Your task to perform on an android device: What's the news in Nepal? Image 0: 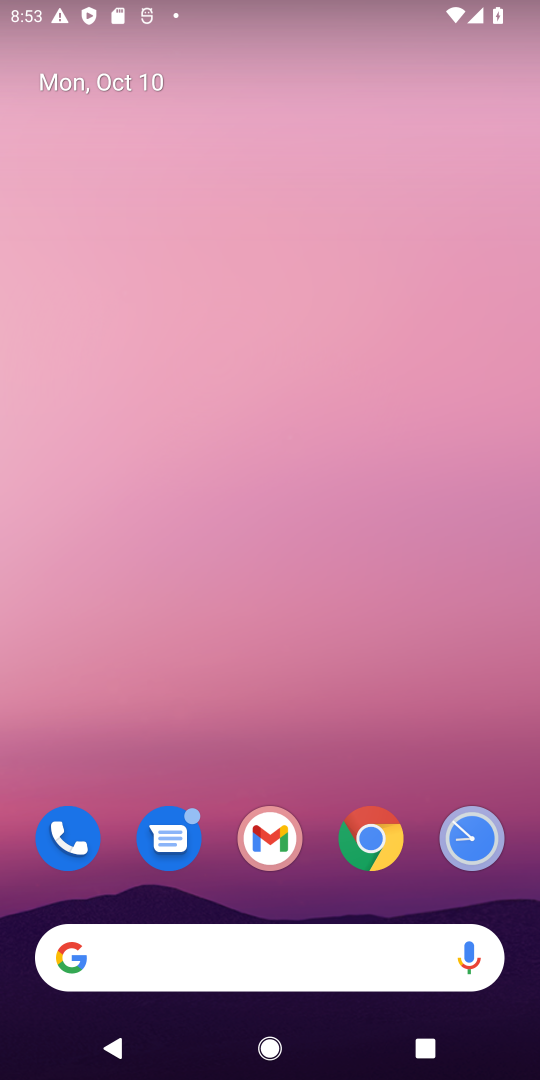
Step 0: drag from (307, 911) to (286, 133)
Your task to perform on an android device: What's the news in Nepal? Image 1: 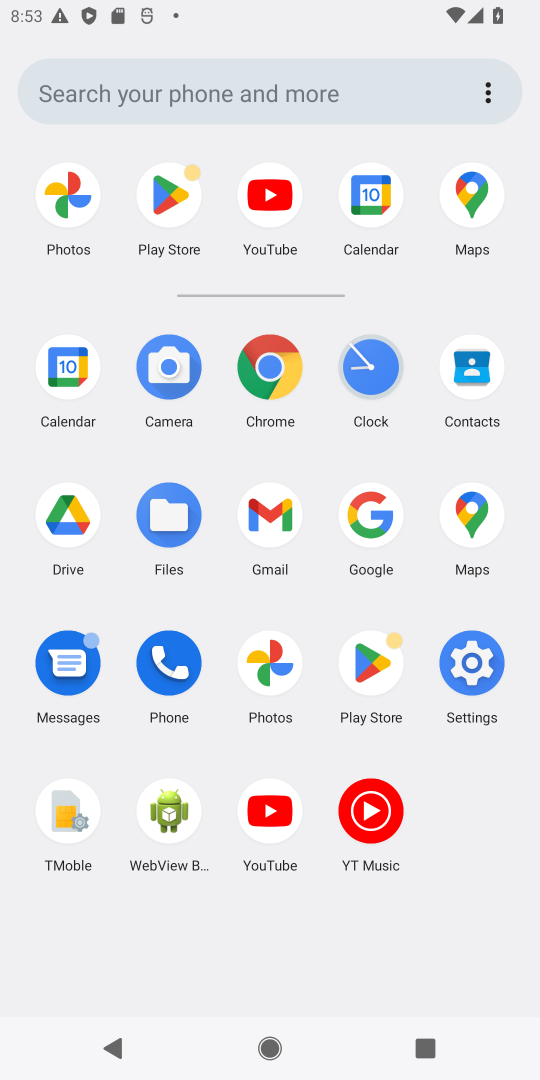
Step 1: click (263, 368)
Your task to perform on an android device: What's the news in Nepal? Image 2: 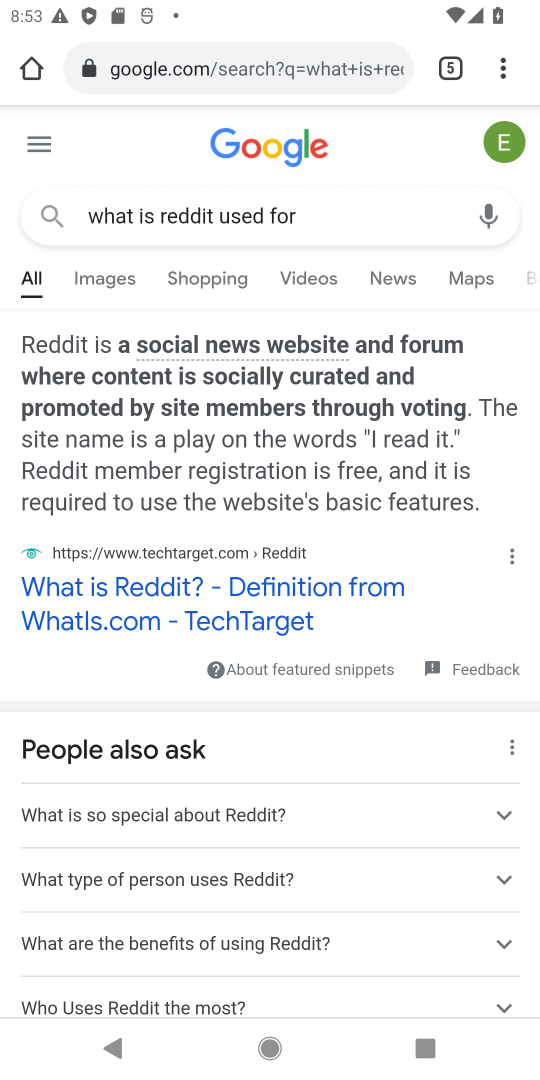
Step 2: click (348, 205)
Your task to perform on an android device: What's the news in Nepal? Image 3: 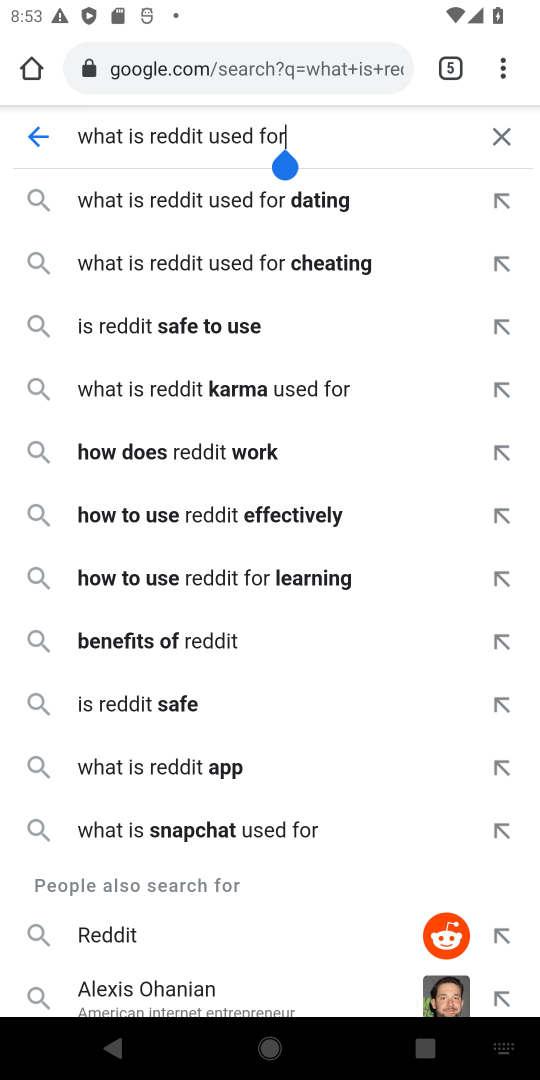
Step 3: click (490, 135)
Your task to perform on an android device: What's the news in Nepal? Image 4: 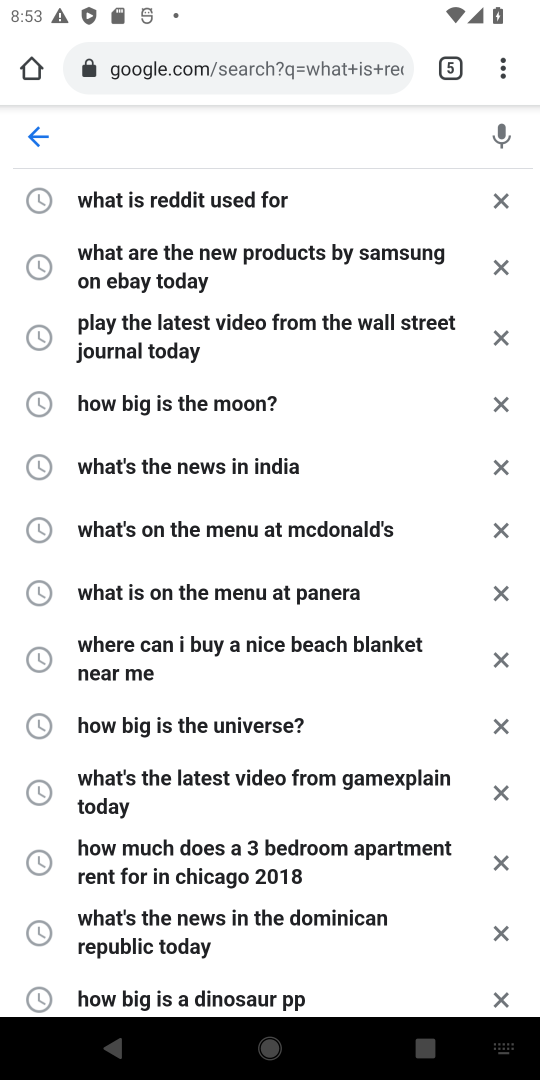
Step 4: type "What's the news in Nepal?"
Your task to perform on an android device: What's the news in Nepal? Image 5: 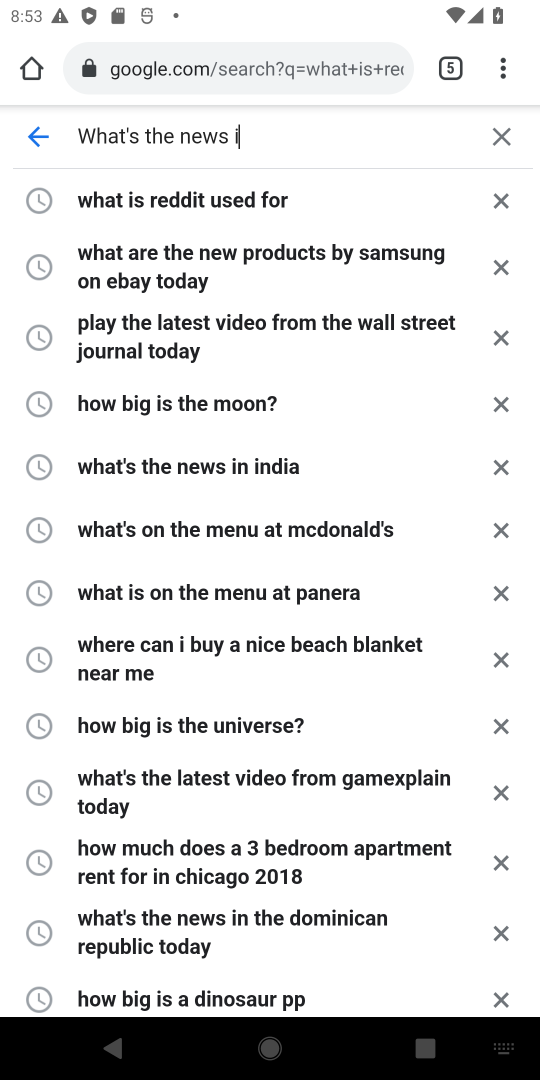
Step 5: type ""
Your task to perform on an android device: What's the news in Nepal? Image 6: 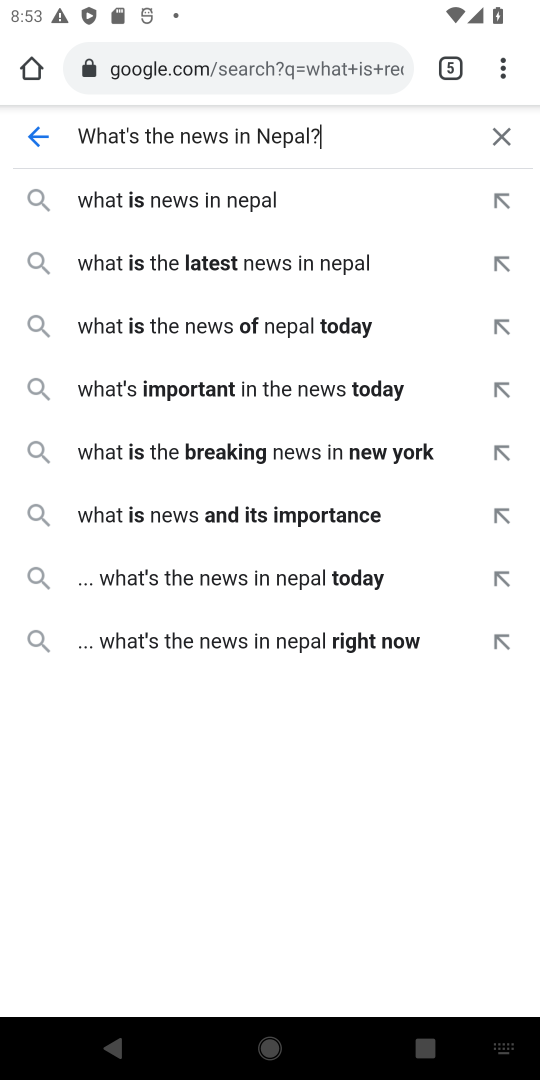
Step 6: click (223, 203)
Your task to perform on an android device: What's the news in Nepal? Image 7: 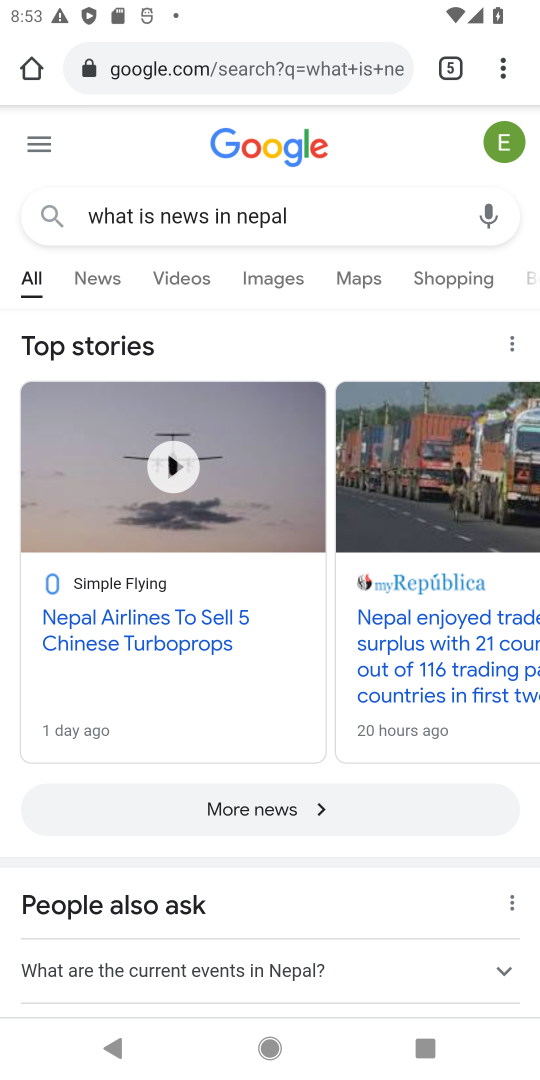
Step 7: click (98, 278)
Your task to perform on an android device: What's the news in Nepal? Image 8: 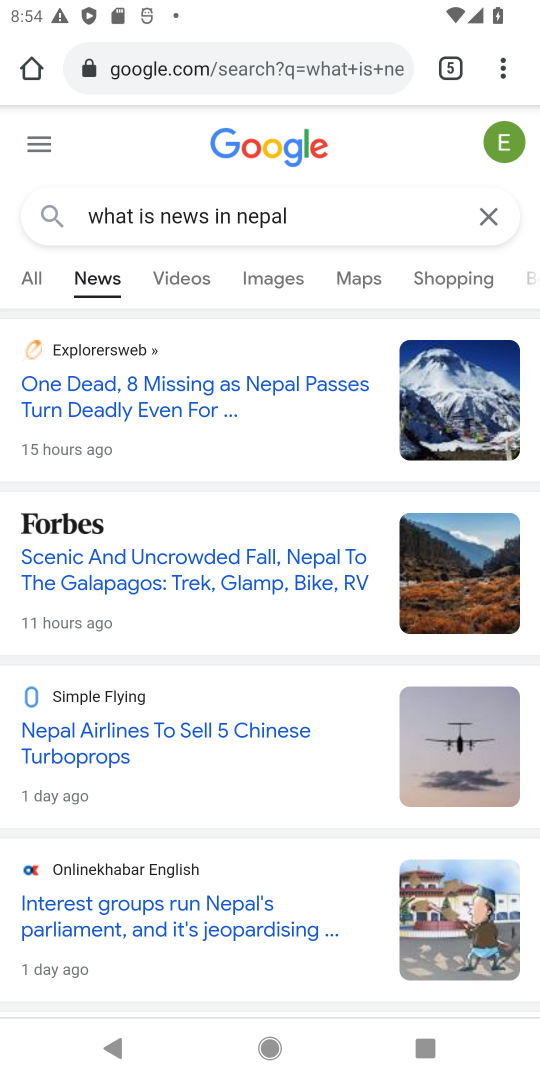
Step 8: task complete